Your task to perform on an android device: set default search engine in the chrome app Image 0: 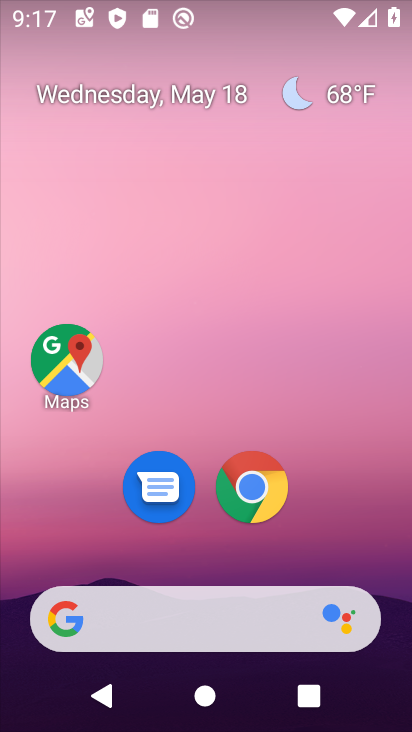
Step 0: drag from (366, 552) to (364, 296)
Your task to perform on an android device: set default search engine in the chrome app Image 1: 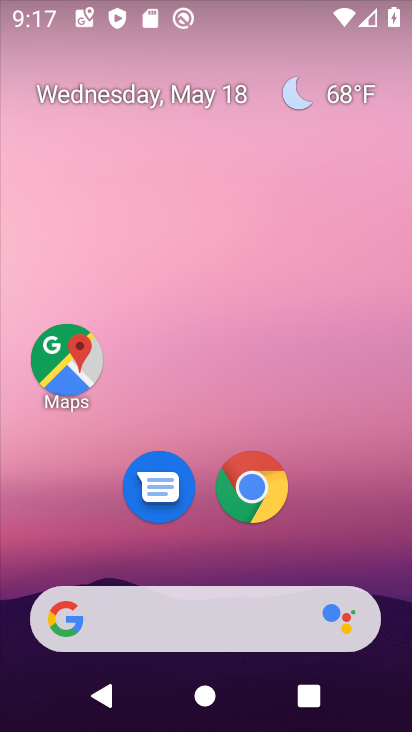
Step 1: click (275, 491)
Your task to perform on an android device: set default search engine in the chrome app Image 2: 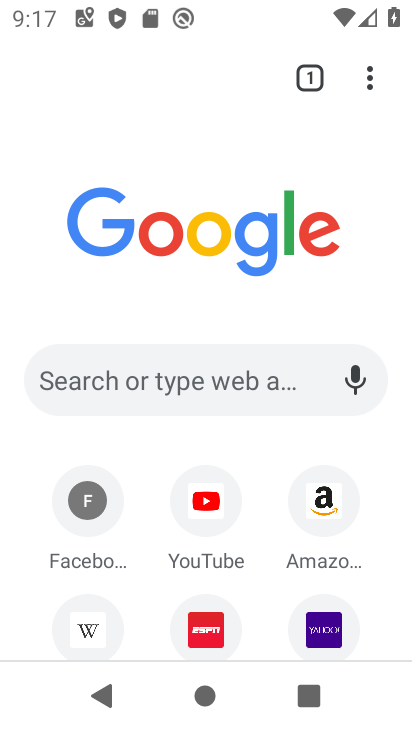
Step 2: drag from (370, 90) to (127, 535)
Your task to perform on an android device: set default search engine in the chrome app Image 3: 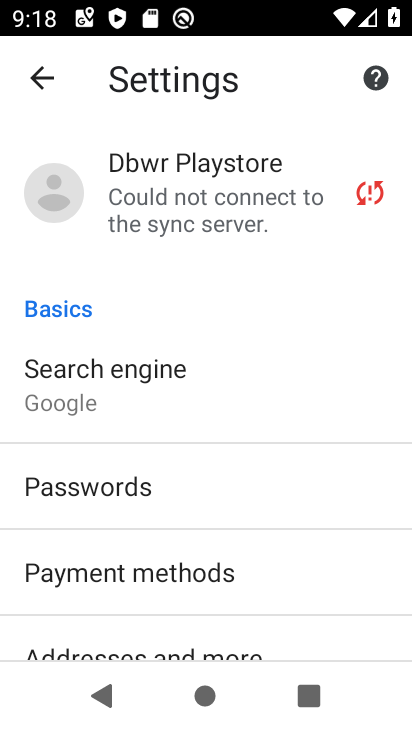
Step 3: click (173, 382)
Your task to perform on an android device: set default search engine in the chrome app Image 4: 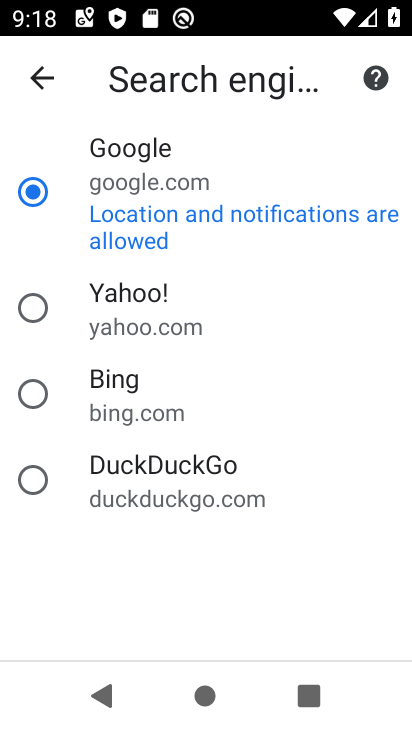
Step 4: click (179, 333)
Your task to perform on an android device: set default search engine in the chrome app Image 5: 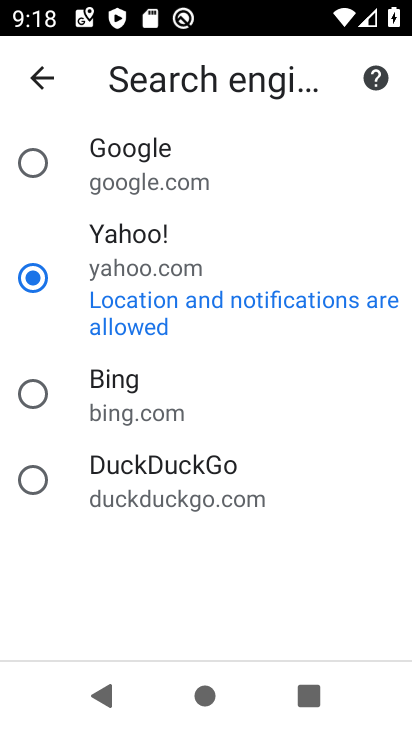
Step 5: task complete